Your task to perform on an android device: install app "HBO Max: Stream TV & Movies" Image 0: 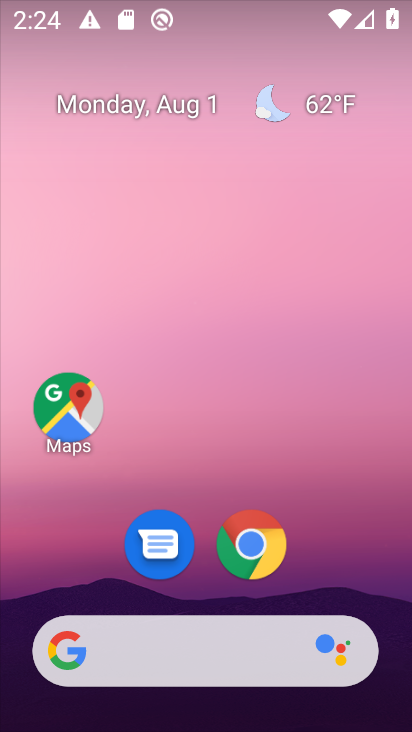
Step 0: drag from (372, 603) to (225, 57)
Your task to perform on an android device: install app "HBO Max: Stream TV & Movies" Image 1: 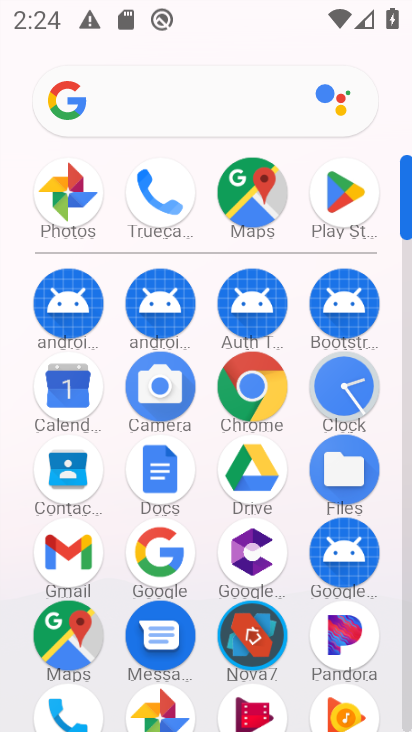
Step 1: click (312, 219)
Your task to perform on an android device: install app "HBO Max: Stream TV & Movies" Image 2: 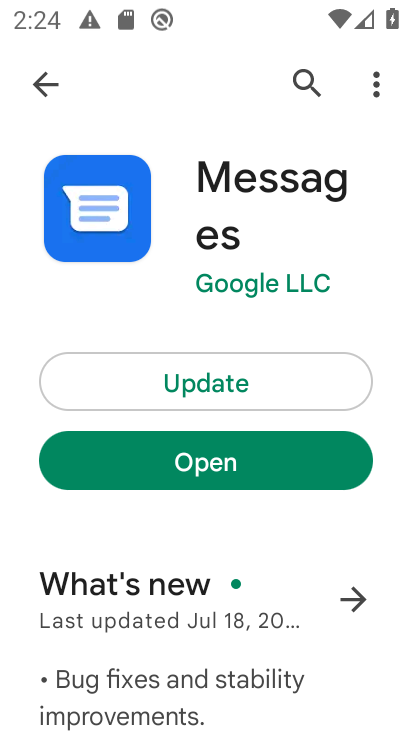
Step 2: press back button
Your task to perform on an android device: install app "HBO Max: Stream TV & Movies" Image 3: 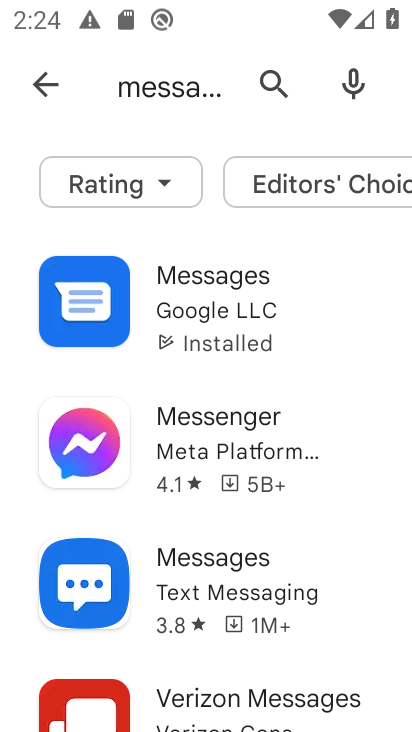
Step 3: press back button
Your task to perform on an android device: install app "HBO Max: Stream TV & Movies" Image 4: 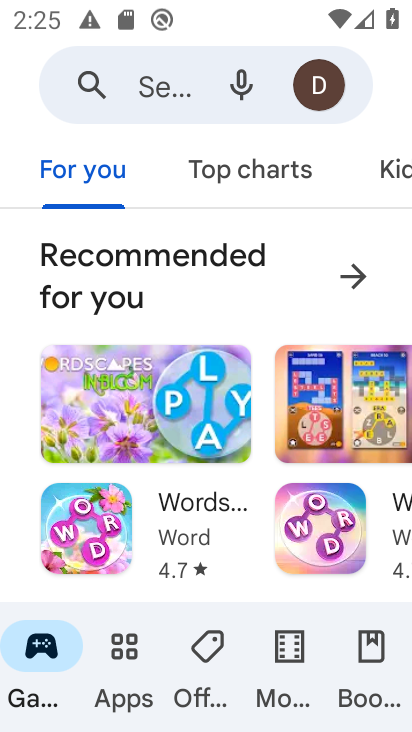
Step 4: click (141, 90)
Your task to perform on an android device: install app "HBO Max: Stream TV & Movies" Image 5: 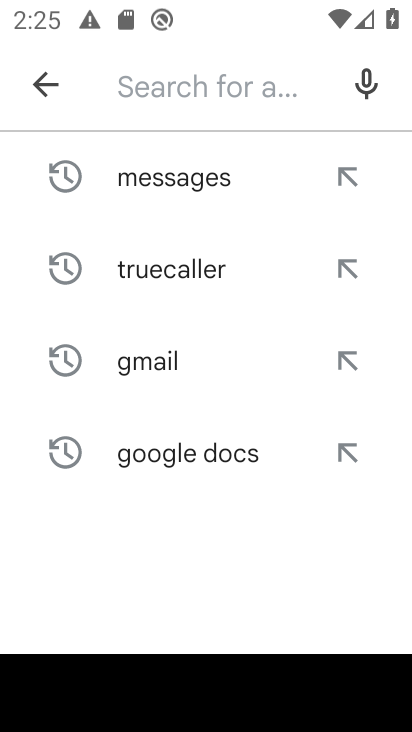
Step 5: type "HBO Max: Stream TV & Movies"
Your task to perform on an android device: install app "HBO Max: Stream TV & Movies" Image 6: 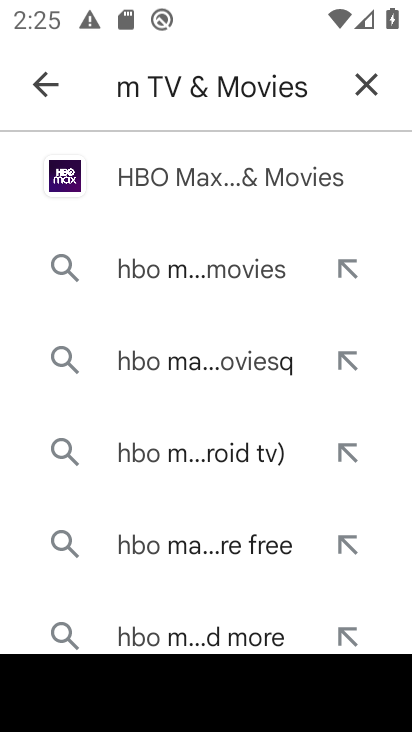
Step 6: click (160, 178)
Your task to perform on an android device: install app "HBO Max: Stream TV & Movies" Image 7: 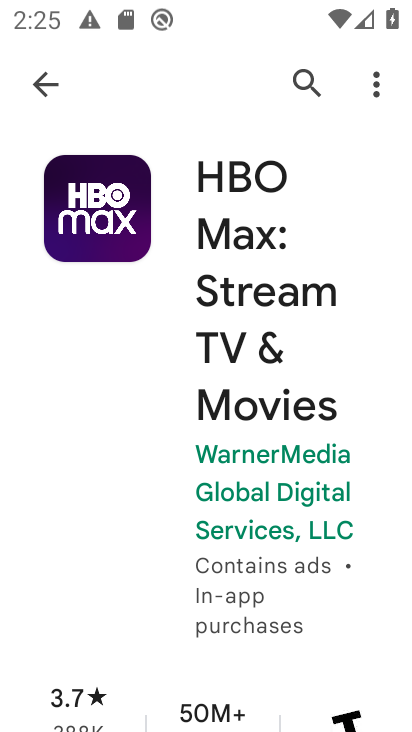
Step 7: drag from (252, 582) to (269, 55)
Your task to perform on an android device: install app "HBO Max: Stream TV & Movies" Image 8: 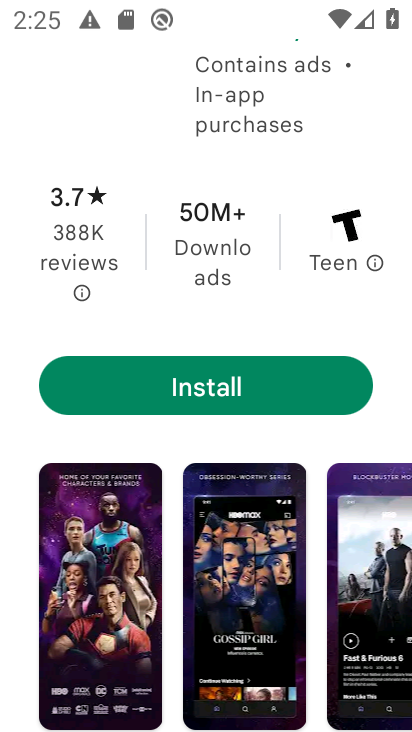
Step 8: click (163, 384)
Your task to perform on an android device: install app "HBO Max: Stream TV & Movies" Image 9: 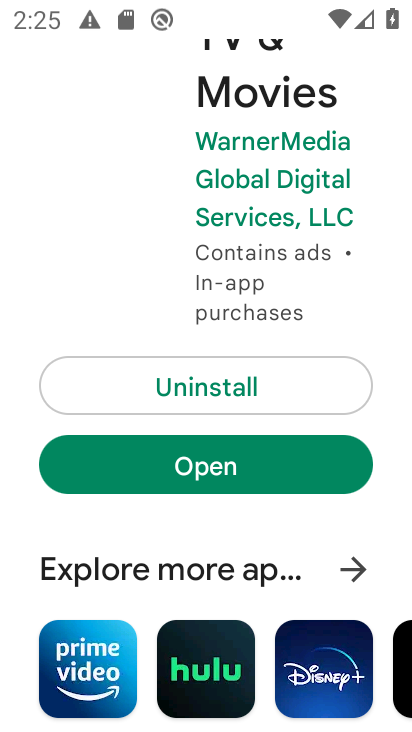
Step 9: task complete